Your task to perform on an android device: turn off sleep mode Image 0: 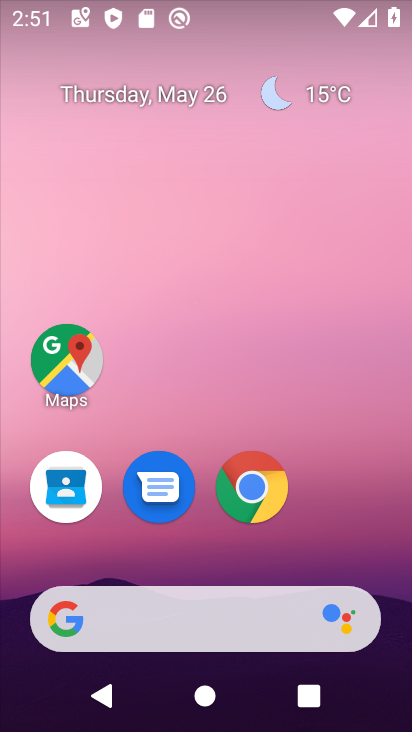
Step 0: drag from (190, 545) to (204, 62)
Your task to perform on an android device: turn off sleep mode Image 1: 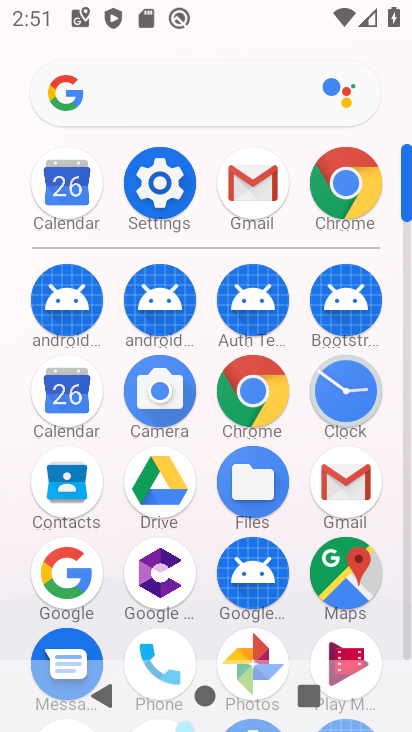
Step 1: click (165, 202)
Your task to perform on an android device: turn off sleep mode Image 2: 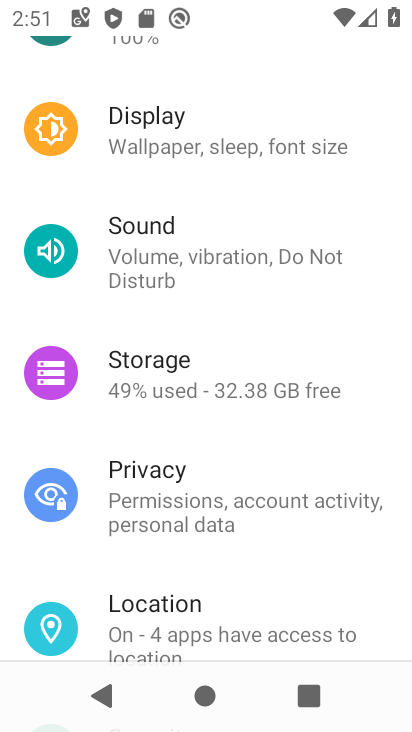
Step 2: drag from (209, 239) to (242, 533)
Your task to perform on an android device: turn off sleep mode Image 3: 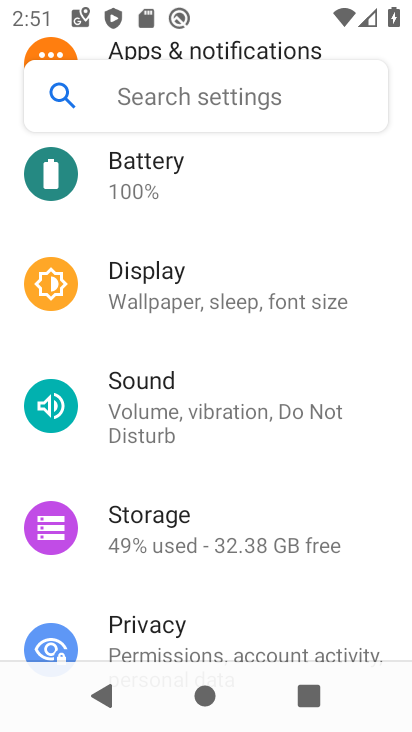
Step 3: click (264, 287)
Your task to perform on an android device: turn off sleep mode Image 4: 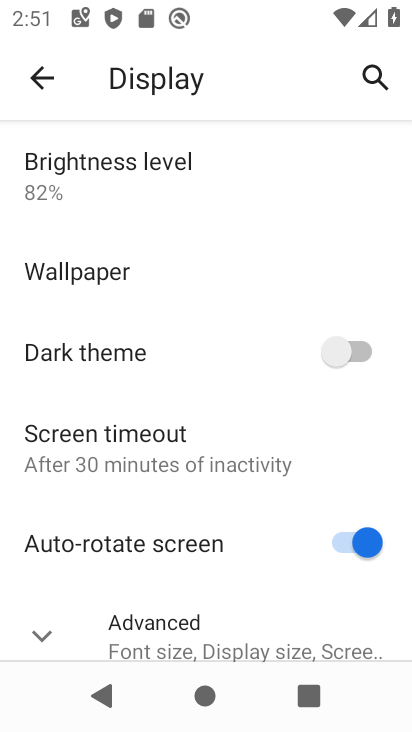
Step 4: click (237, 448)
Your task to perform on an android device: turn off sleep mode Image 5: 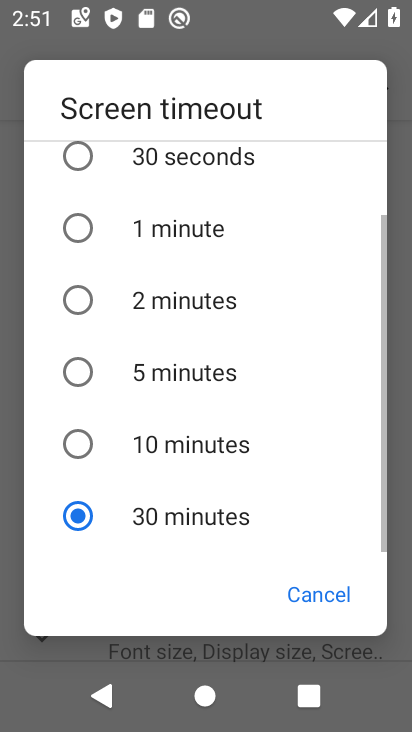
Step 5: click (211, 291)
Your task to perform on an android device: turn off sleep mode Image 6: 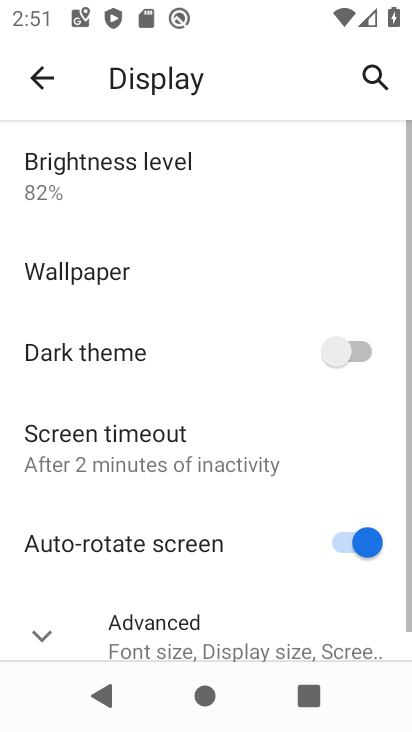
Step 6: task complete